Your task to perform on an android device: toggle priority inbox in the gmail app Image 0: 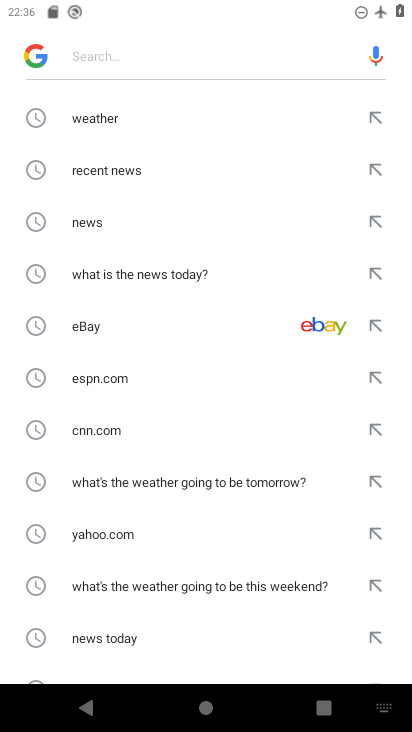
Step 0: press home button
Your task to perform on an android device: toggle priority inbox in the gmail app Image 1: 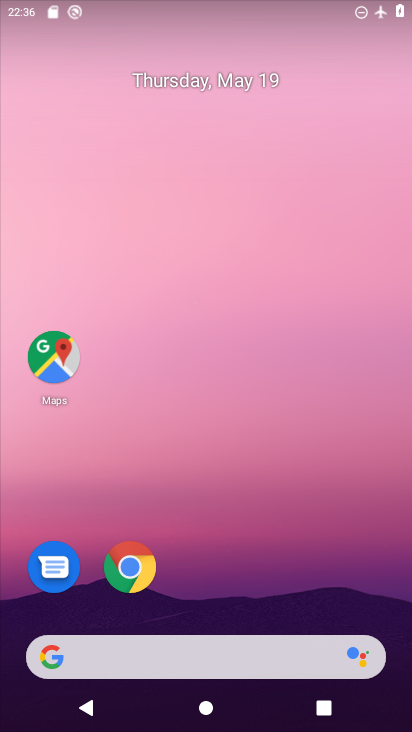
Step 1: drag from (228, 618) to (274, 61)
Your task to perform on an android device: toggle priority inbox in the gmail app Image 2: 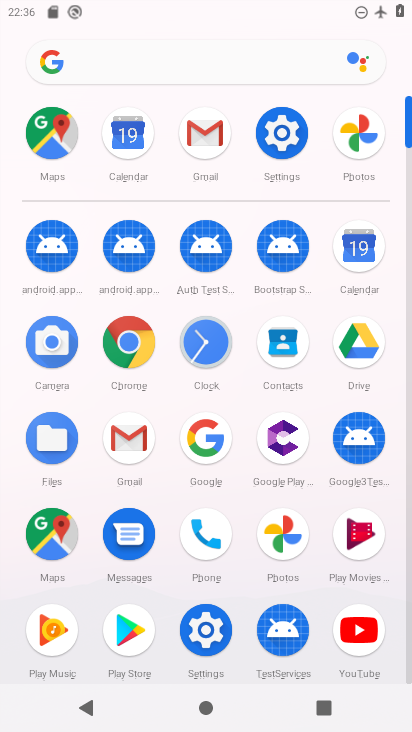
Step 2: click (198, 122)
Your task to perform on an android device: toggle priority inbox in the gmail app Image 3: 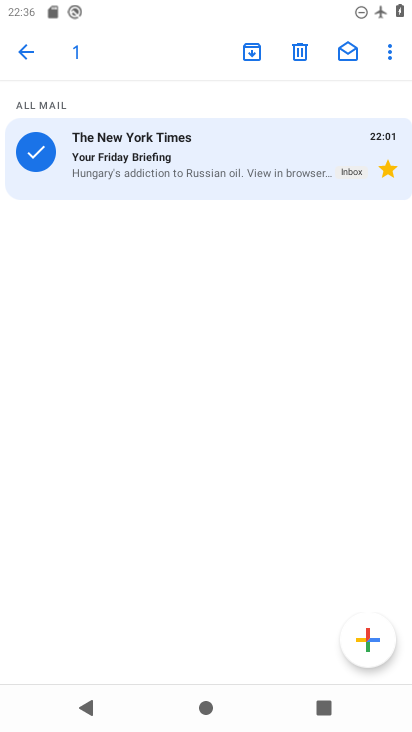
Step 3: click (26, 56)
Your task to perform on an android device: toggle priority inbox in the gmail app Image 4: 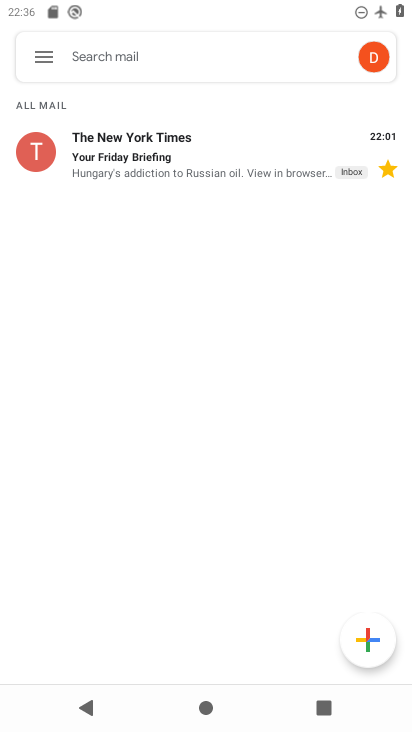
Step 4: click (26, 55)
Your task to perform on an android device: toggle priority inbox in the gmail app Image 5: 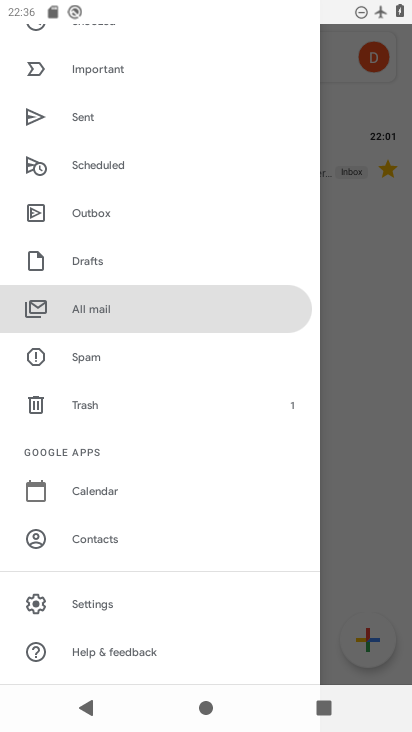
Step 5: click (126, 599)
Your task to perform on an android device: toggle priority inbox in the gmail app Image 6: 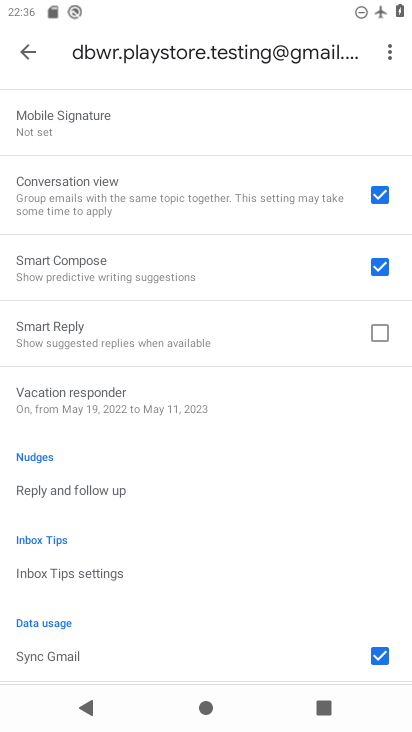
Step 6: drag from (174, 158) to (193, 663)
Your task to perform on an android device: toggle priority inbox in the gmail app Image 7: 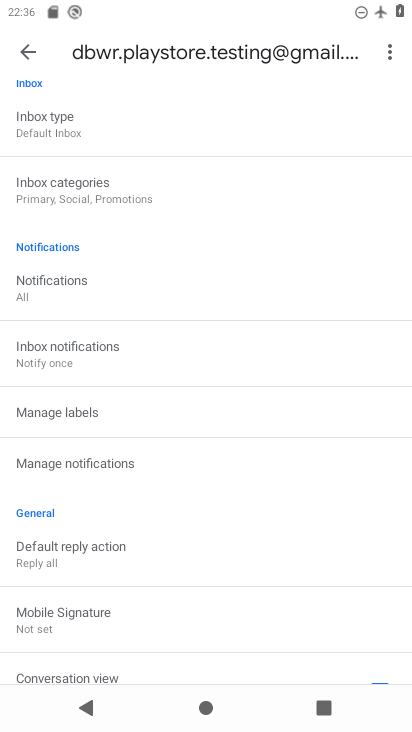
Step 7: click (96, 127)
Your task to perform on an android device: toggle priority inbox in the gmail app Image 8: 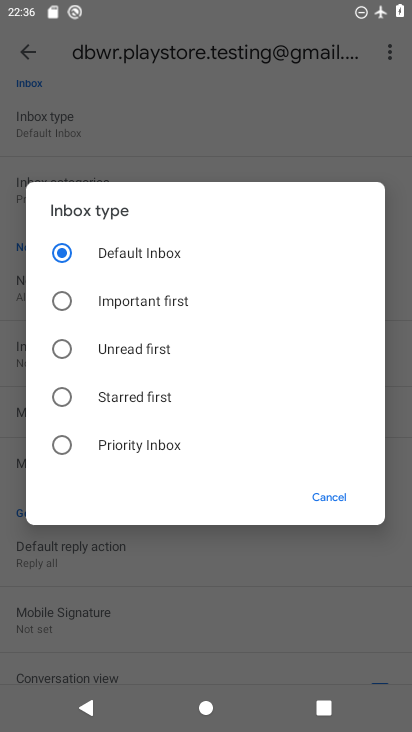
Step 8: click (67, 438)
Your task to perform on an android device: toggle priority inbox in the gmail app Image 9: 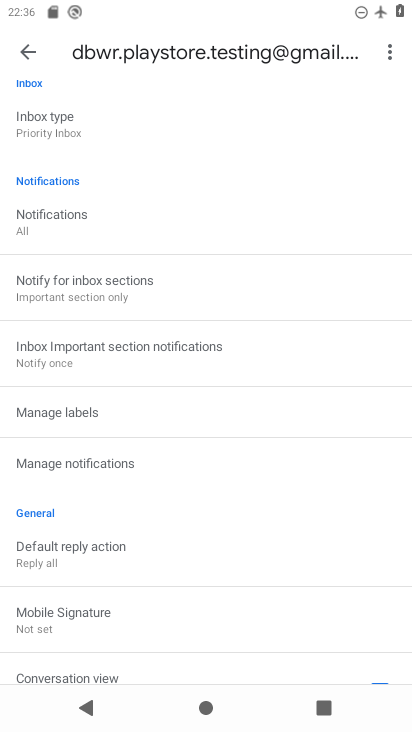
Step 9: task complete